Your task to perform on an android device: Show me recent news Image 0: 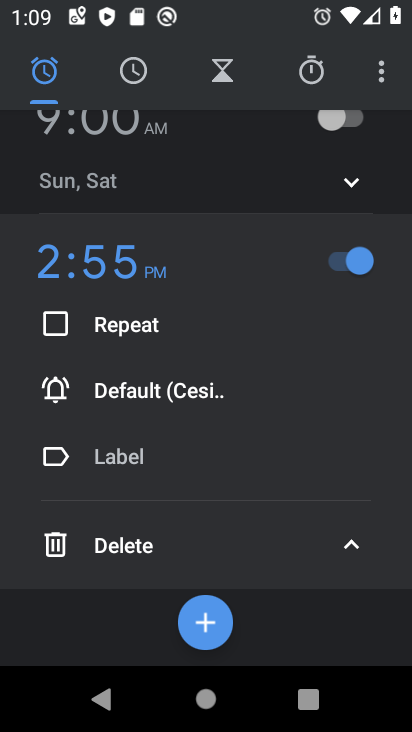
Step 0: press home button
Your task to perform on an android device: Show me recent news Image 1: 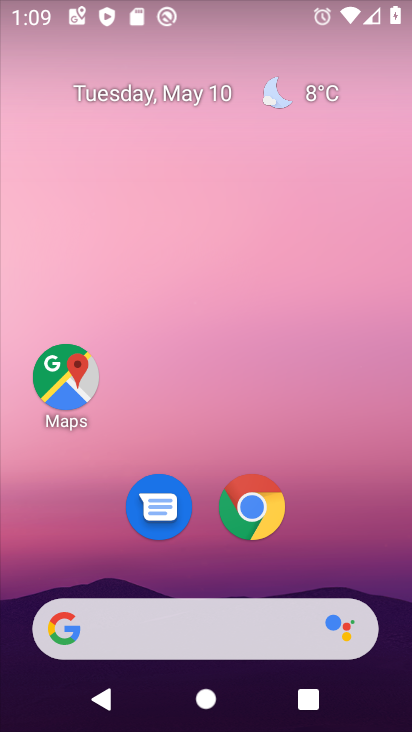
Step 1: task complete